Your task to perform on an android device: Search for sushi restaurants on Maps Image 0: 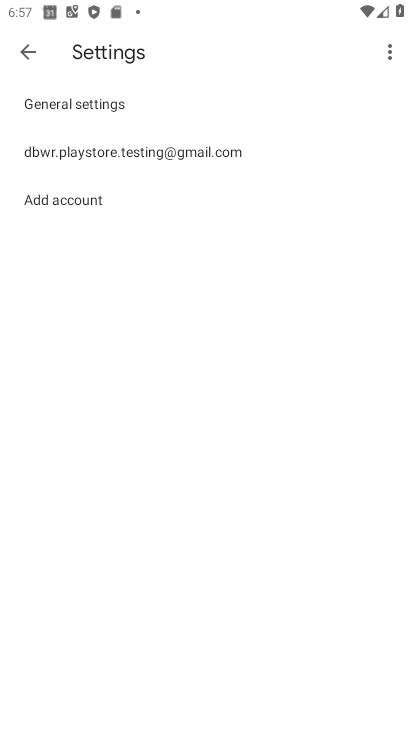
Step 0: press home button
Your task to perform on an android device: Search for sushi restaurants on Maps Image 1: 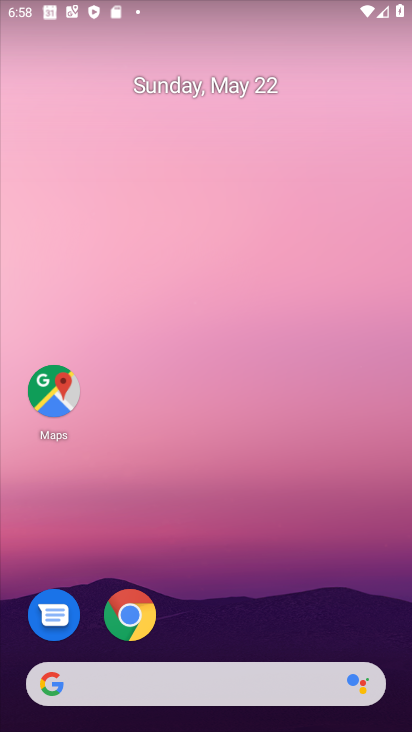
Step 1: click (48, 392)
Your task to perform on an android device: Search for sushi restaurants on Maps Image 2: 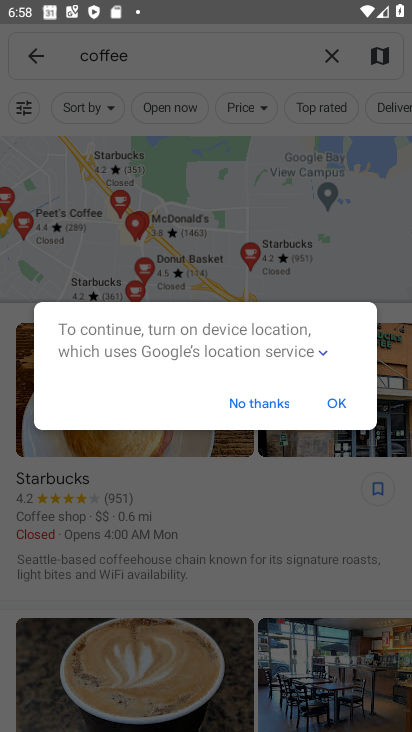
Step 2: click (271, 399)
Your task to perform on an android device: Search for sushi restaurants on Maps Image 3: 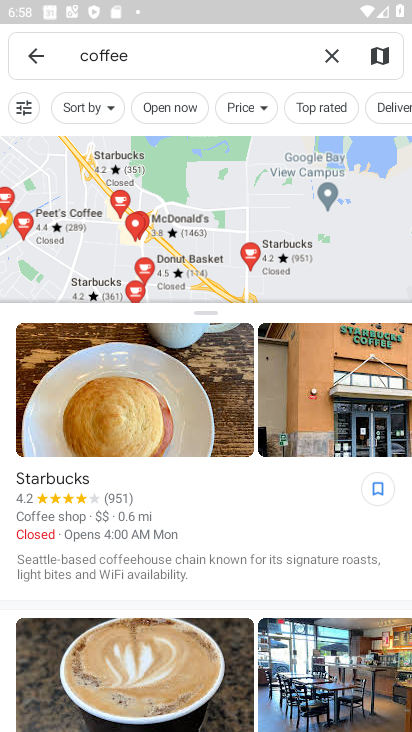
Step 3: click (332, 45)
Your task to perform on an android device: Search for sushi restaurants on Maps Image 4: 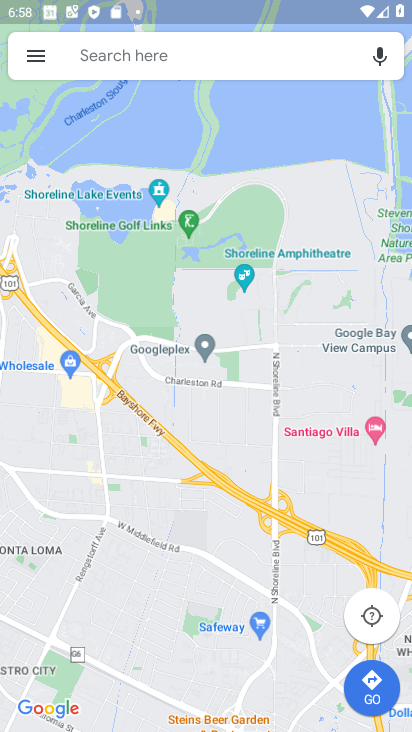
Step 4: click (184, 60)
Your task to perform on an android device: Search for sushi restaurants on Maps Image 5: 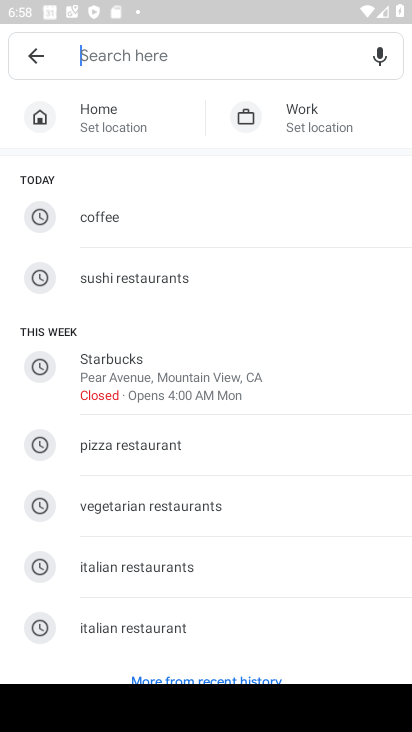
Step 5: type "sushi"
Your task to perform on an android device: Search for sushi restaurants on Maps Image 6: 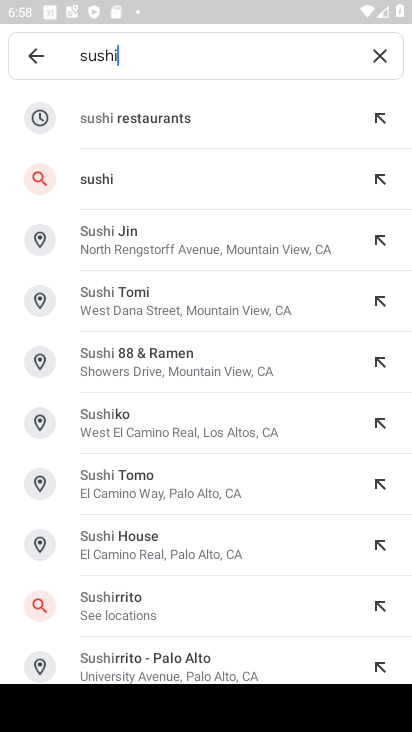
Step 6: click (141, 109)
Your task to perform on an android device: Search for sushi restaurants on Maps Image 7: 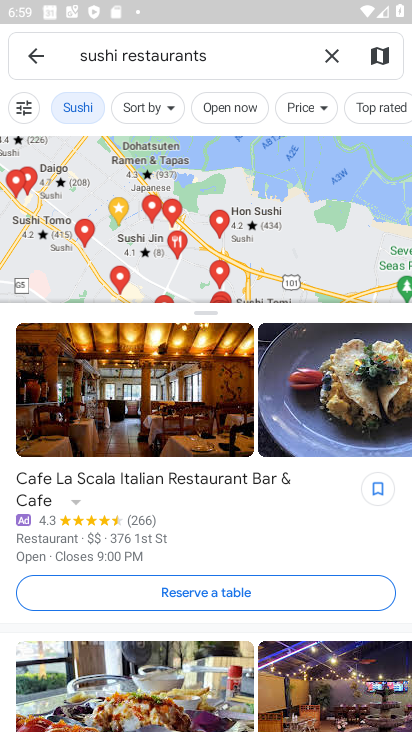
Step 7: task complete